Your task to perform on an android device: install app "Google Pay: Save, Pay, Manage" Image 0: 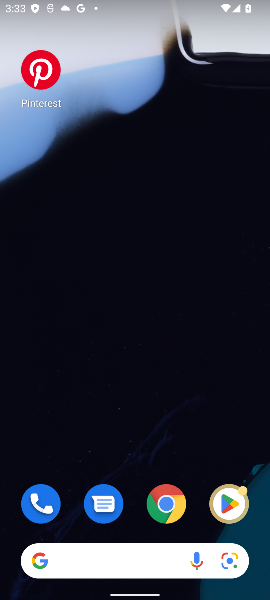
Step 0: click (241, 499)
Your task to perform on an android device: install app "Google Pay: Save, Pay, Manage" Image 1: 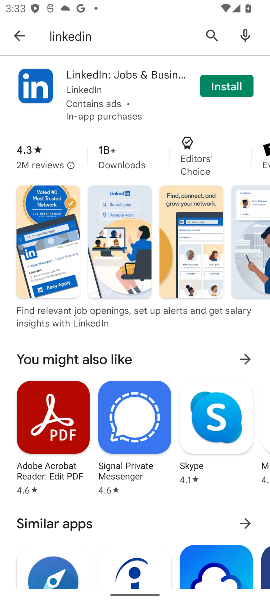
Step 1: click (209, 38)
Your task to perform on an android device: install app "Google Pay: Save, Pay, Manage" Image 2: 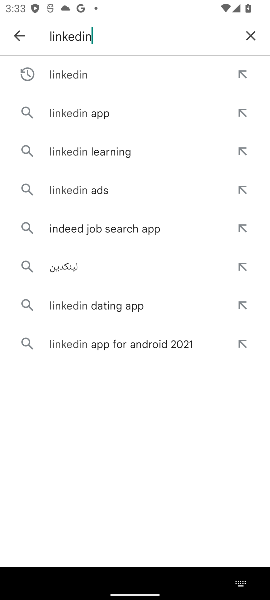
Step 2: click (252, 34)
Your task to perform on an android device: install app "Google Pay: Save, Pay, Manage" Image 3: 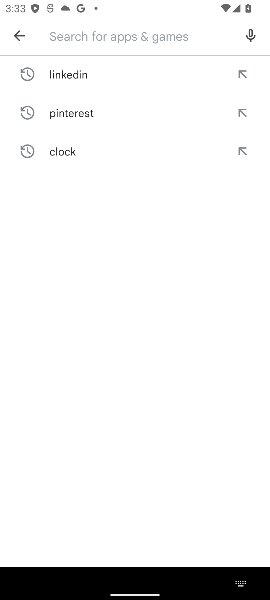
Step 3: type "Google Pay: Save, Pay, Manage"
Your task to perform on an android device: install app "Google Pay: Save, Pay, Manage" Image 4: 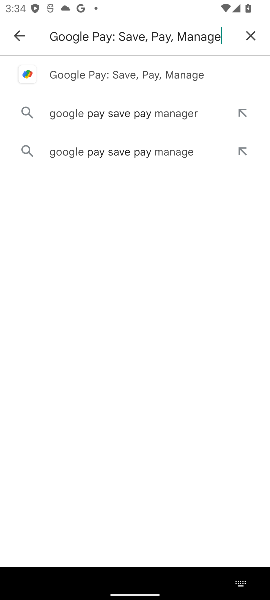
Step 4: click (152, 71)
Your task to perform on an android device: install app "Google Pay: Save, Pay, Manage" Image 5: 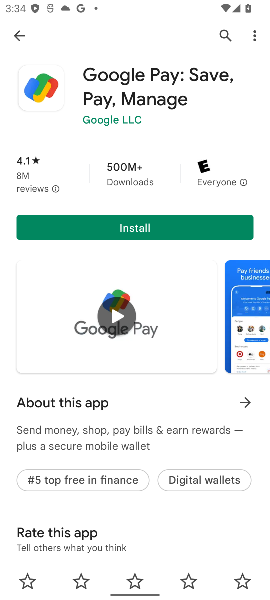
Step 5: click (196, 219)
Your task to perform on an android device: install app "Google Pay: Save, Pay, Manage" Image 6: 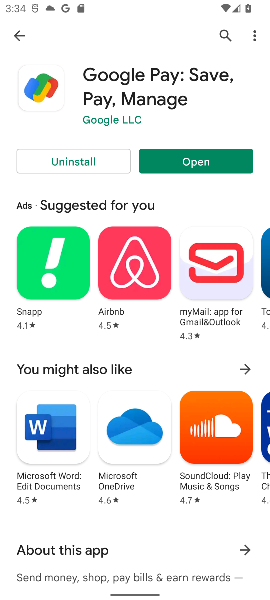
Step 6: click (208, 159)
Your task to perform on an android device: install app "Google Pay: Save, Pay, Manage" Image 7: 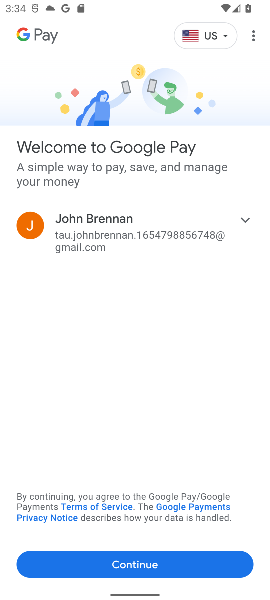
Step 7: click (232, 565)
Your task to perform on an android device: install app "Google Pay: Save, Pay, Manage" Image 8: 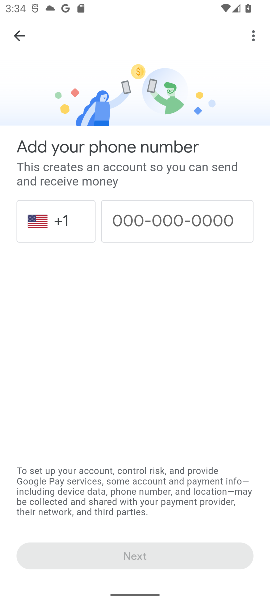
Step 8: task complete